Your task to perform on an android device: Go to CNN.com Image 0: 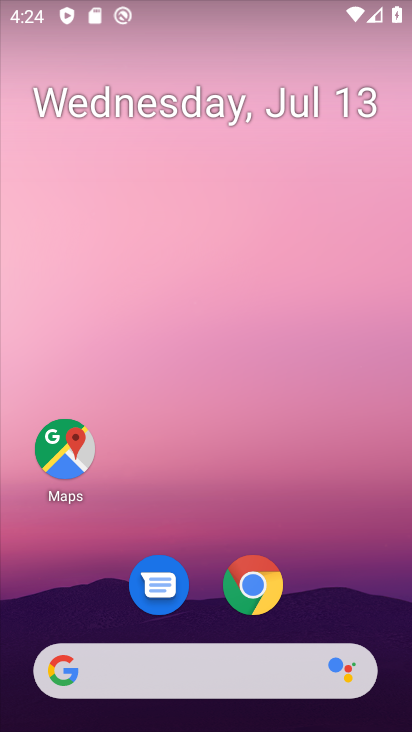
Step 0: click (254, 679)
Your task to perform on an android device: Go to CNN.com Image 1: 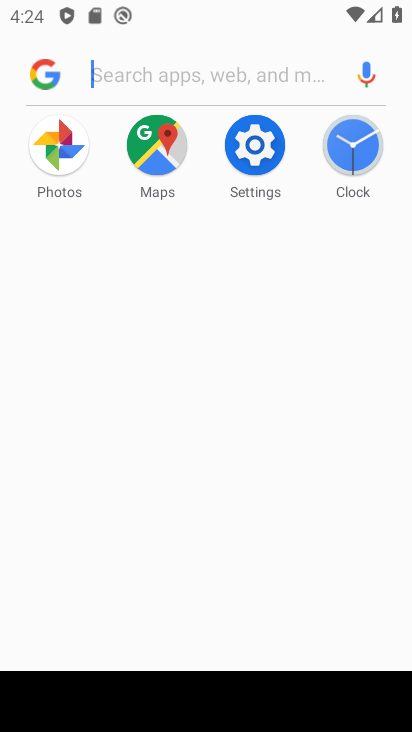
Step 1: click (43, 79)
Your task to perform on an android device: Go to CNN.com Image 2: 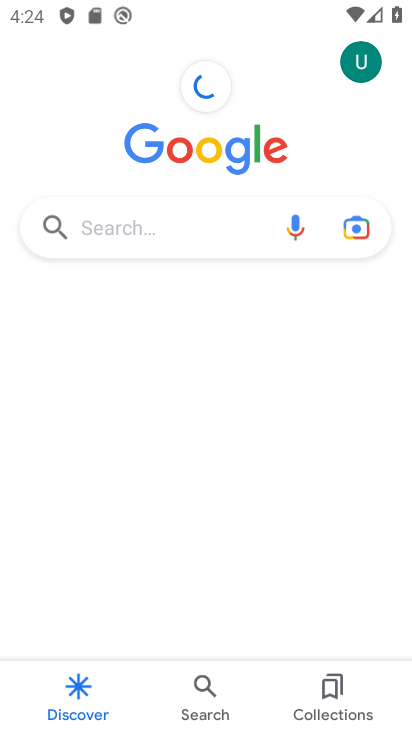
Step 2: click (178, 229)
Your task to perform on an android device: Go to CNN.com Image 3: 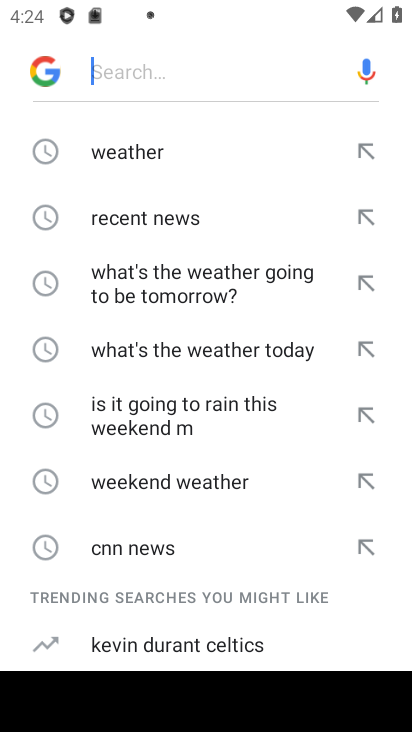
Step 3: type "cnn.com"
Your task to perform on an android device: Go to CNN.com Image 4: 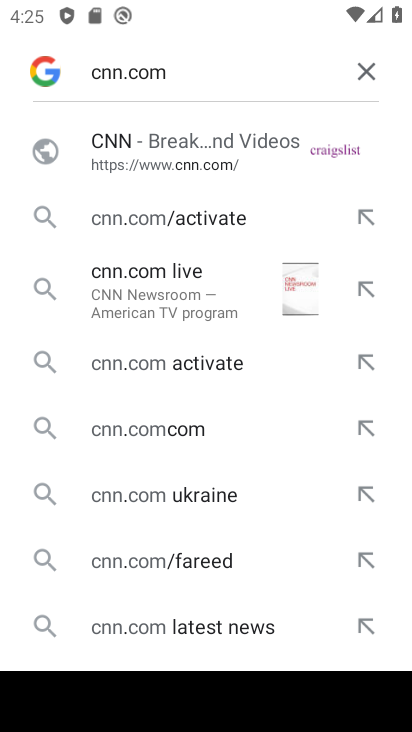
Step 4: click (120, 151)
Your task to perform on an android device: Go to CNN.com Image 5: 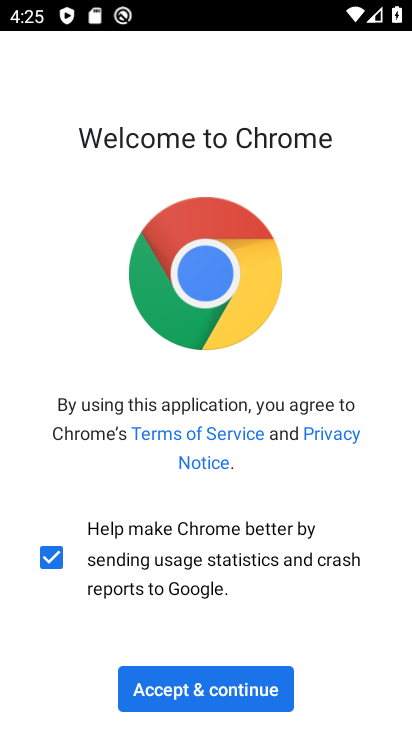
Step 5: click (275, 684)
Your task to perform on an android device: Go to CNN.com Image 6: 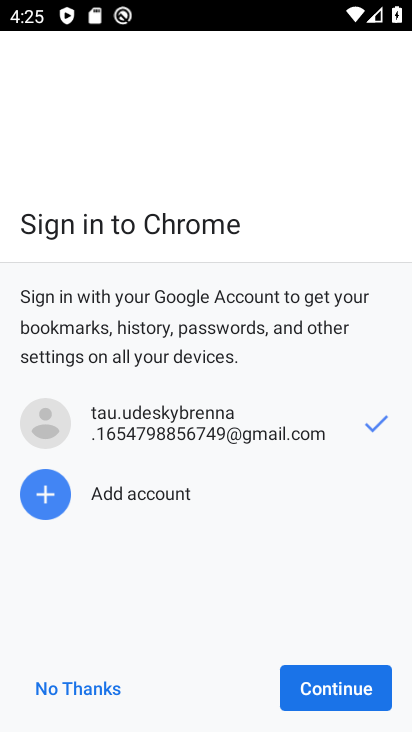
Step 6: click (309, 684)
Your task to perform on an android device: Go to CNN.com Image 7: 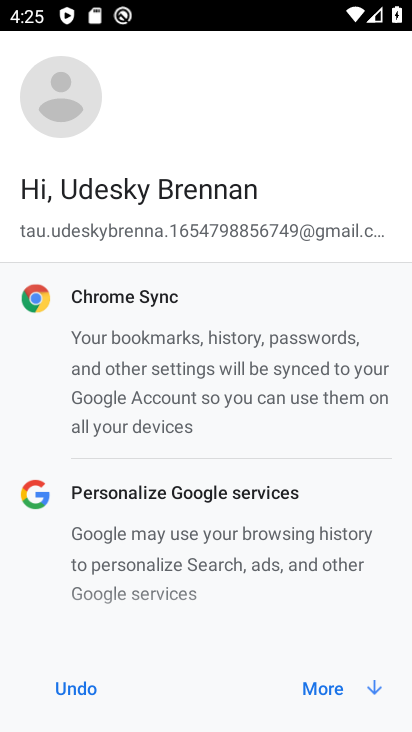
Step 7: click (321, 682)
Your task to perform on an android device: Go to CNN.com Image 8: 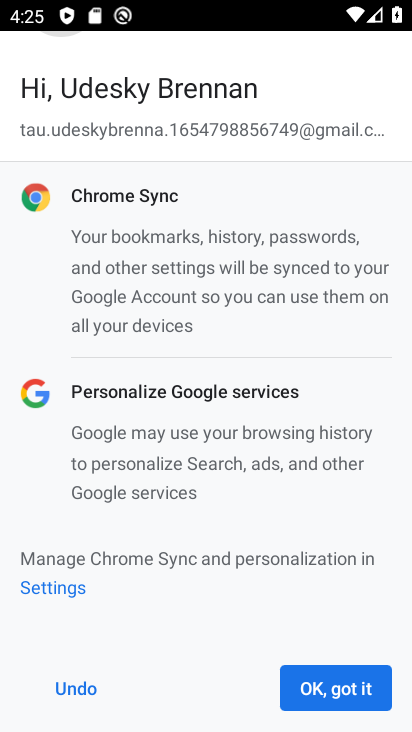
Step 8: click (326, 686)
Your task to perform on an android device: Go to CNN.com Image 9: 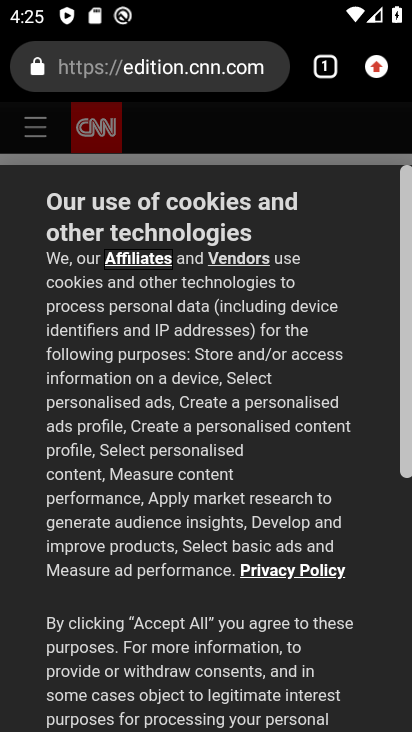
Step 9: drag from (273, 683) to (288, 267)
Your task to perform on an android device: Go to CNN.com Image 10: 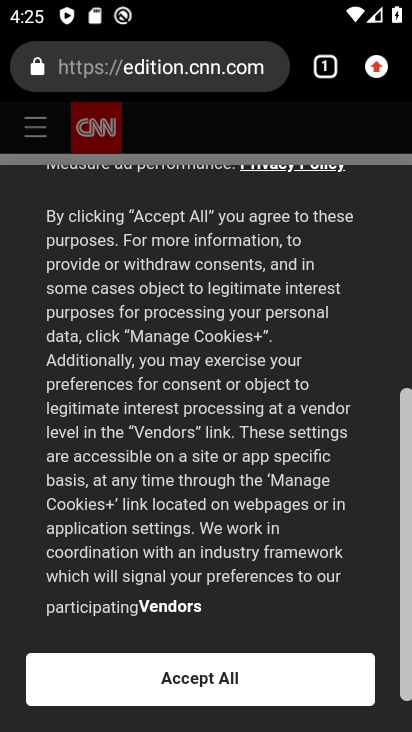
Step 10: click (216, 677)
Your task to perform on an android device: Go to CNN.com Image 11: 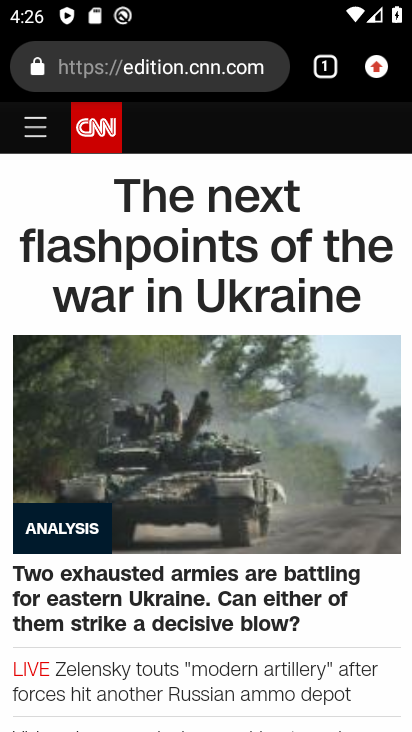
Step 11: task complete